Your task to perform on an android device: turn on bluetooth scan Image 0: 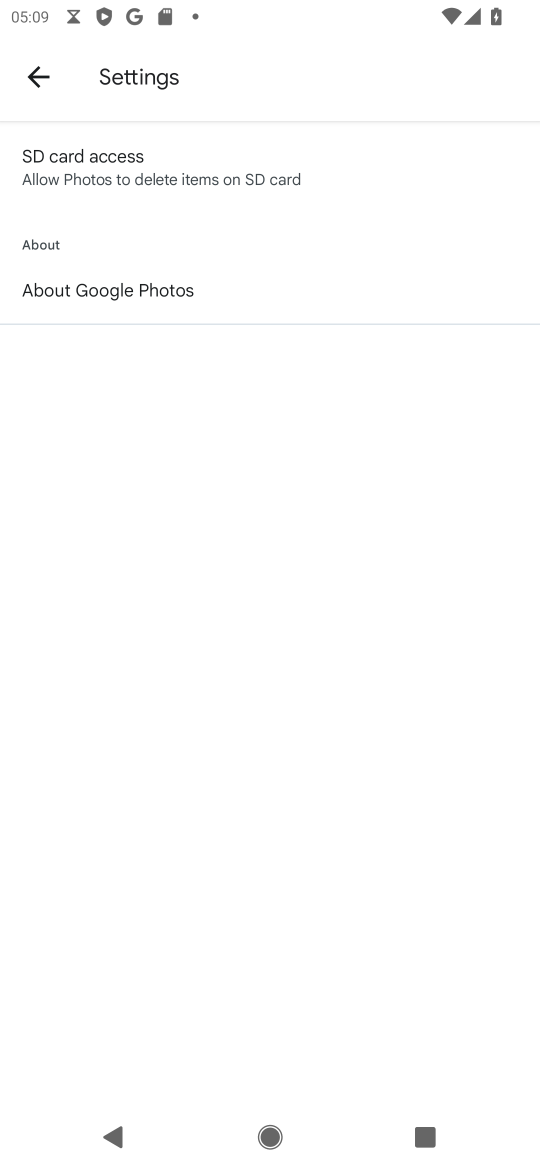
Step 0: press home button
Your task to perform on an android device: turn on bluetooth scan Image 1: 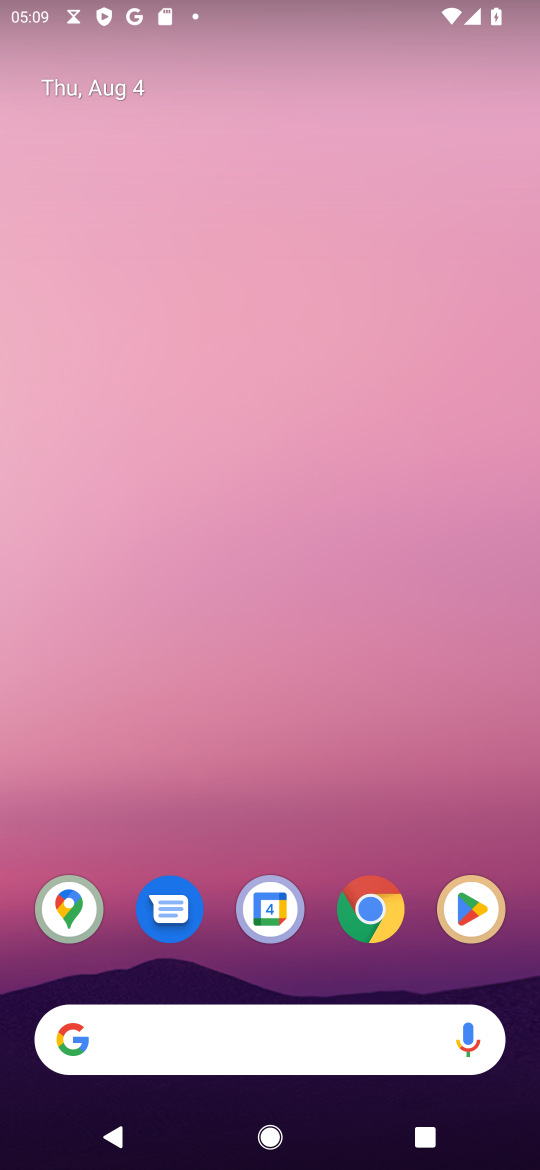
Step 1: drag from (225, 978) to (441, 271)
Your task to perform on an android device: turn on bluetooth scan Image 2: 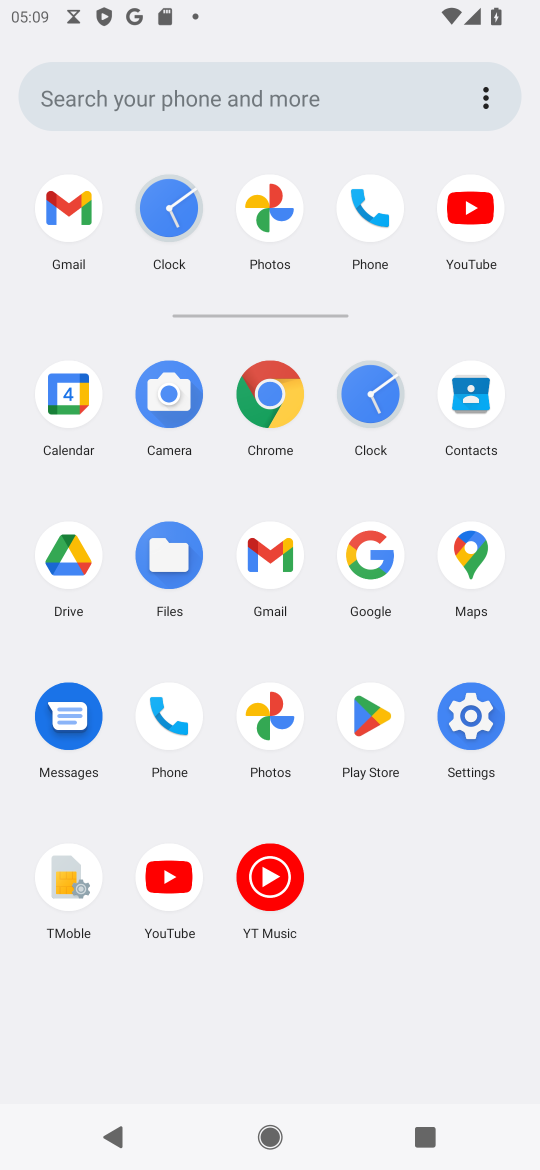
Step 2: click (464, 724)
Your task to perform on an android device: turn on bluetooth scan Image 3: 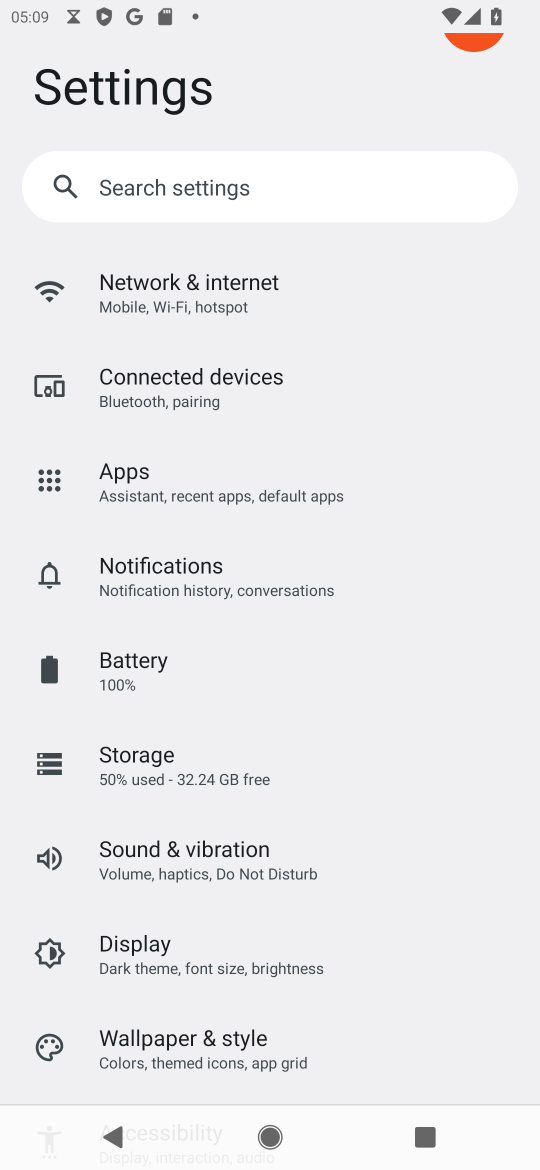
Step 3: drag from (317, 926) to (487, 317)
Your task to perform on an android device: turn on bluetooth scan Image 4: 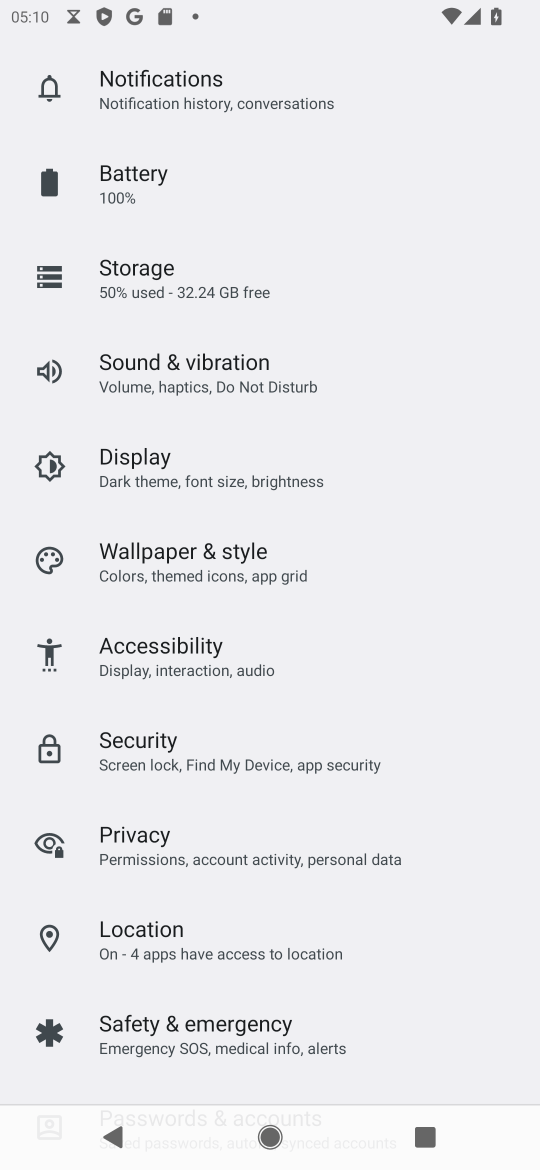
Step 4: click (167, 927)
Your task to perform on an android device: turn on bluetooth scan Image 5: 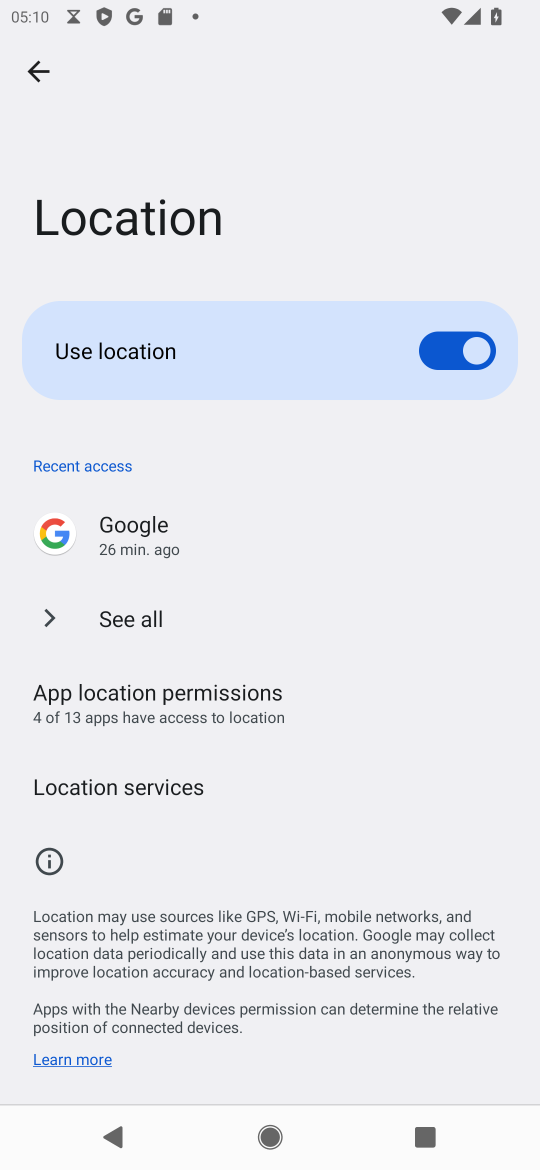
Step 5: click (170, 781)
Your task to perform on an android device: turn on bluetooth scan Image 6: 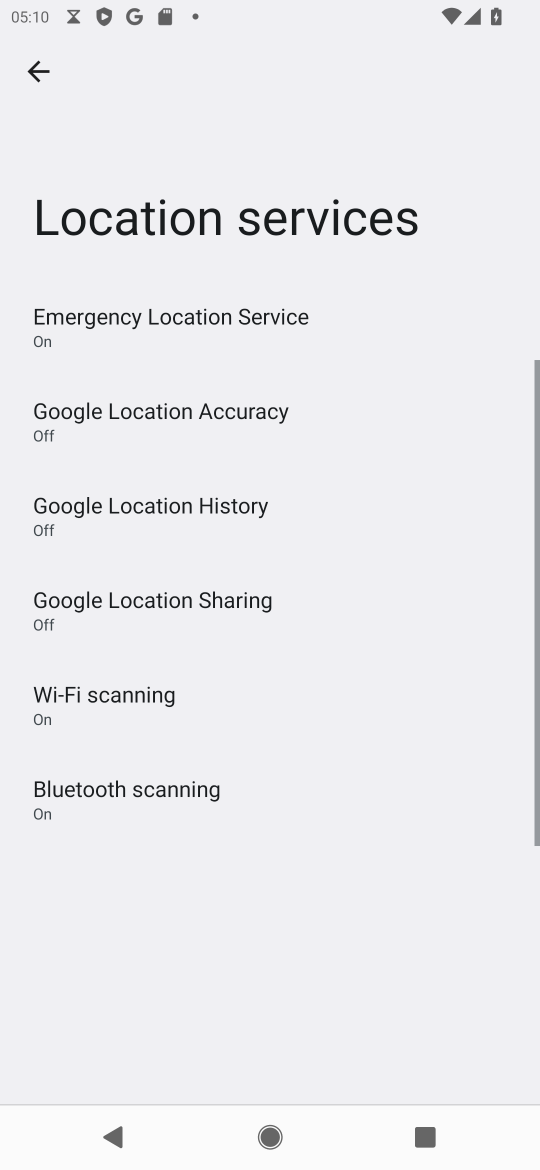
Step 6: drag from (232, 963) to (385, 577)
Your task to perform on an android device: turn on bluetooth scan Image 7: 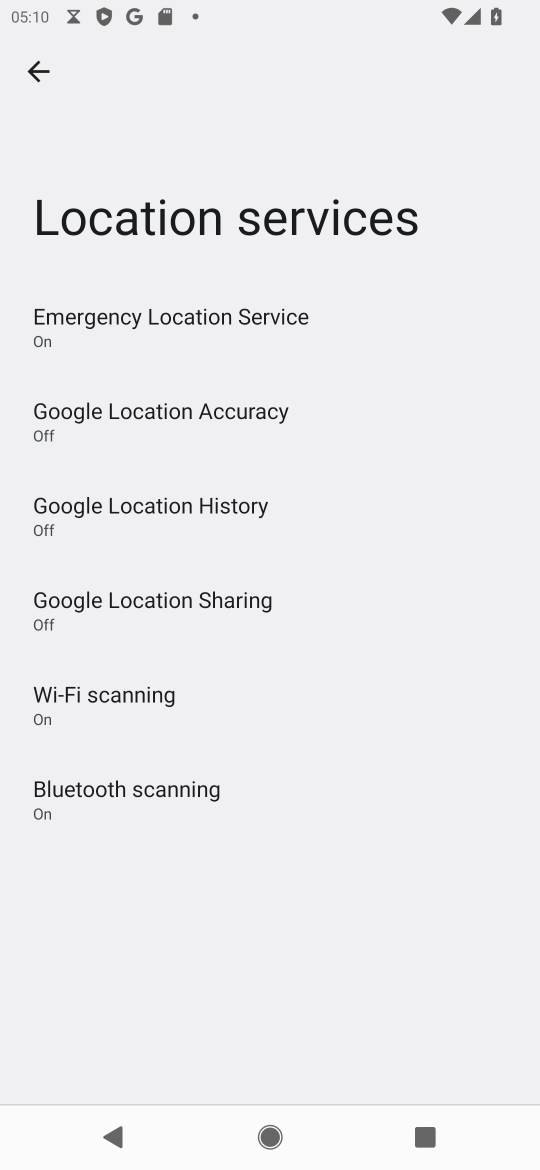
Step 7: click (179, 783)
Your task to perform on an android device: turn on bluetooth scan Image 8: 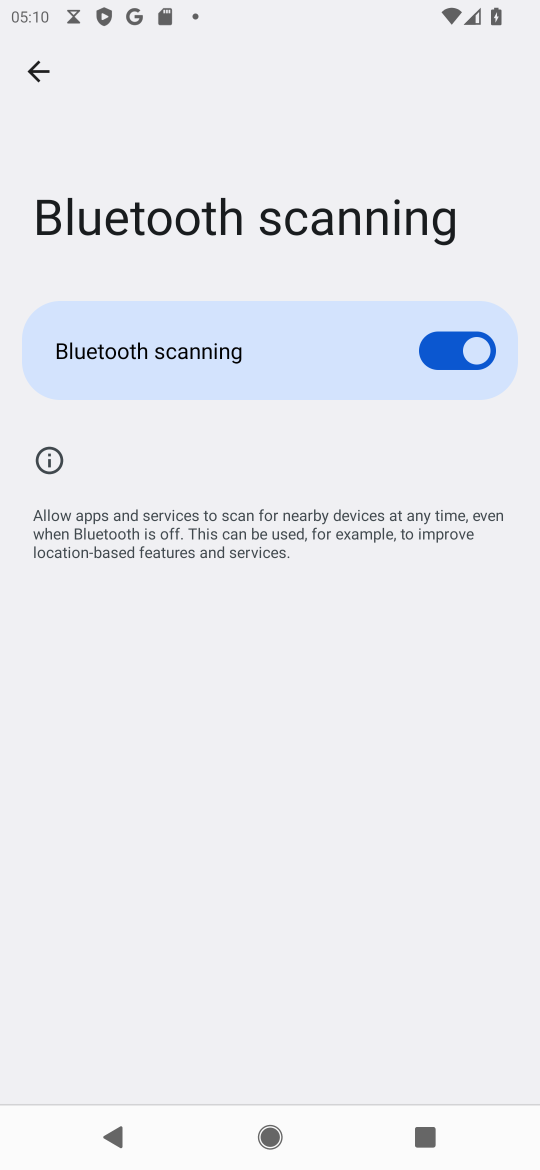
Step 8: task complete